Your task to perform on an android device: Go to Reddit.com Image 0: 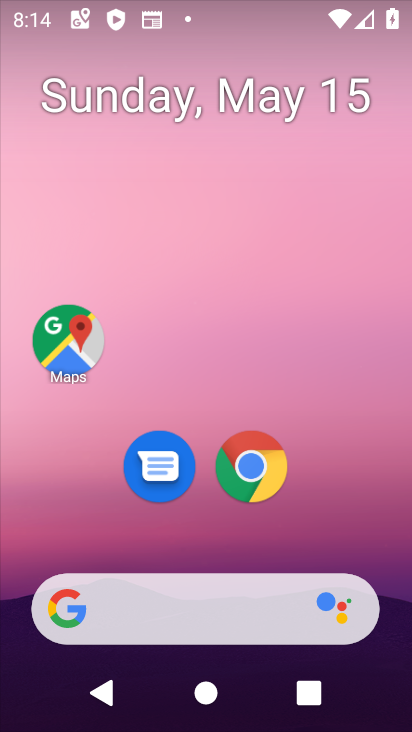
Step 0: click (263, 483)
Your task to perform on an android device: Go to Reddit.com Image 1: 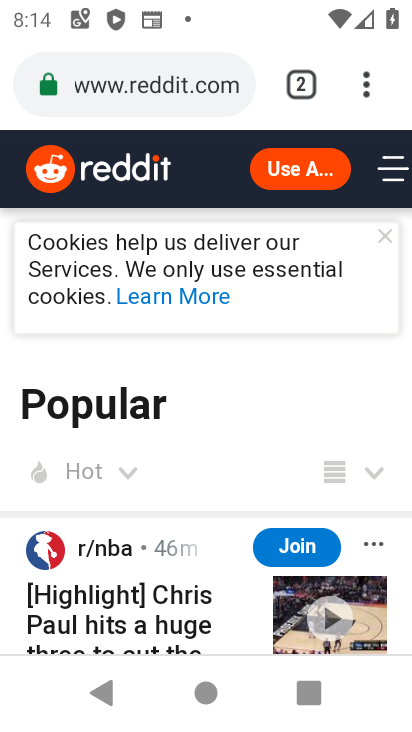
Step 1: task complete